Your task to perform on an android device: Open Maps and search for coffee Image 0: 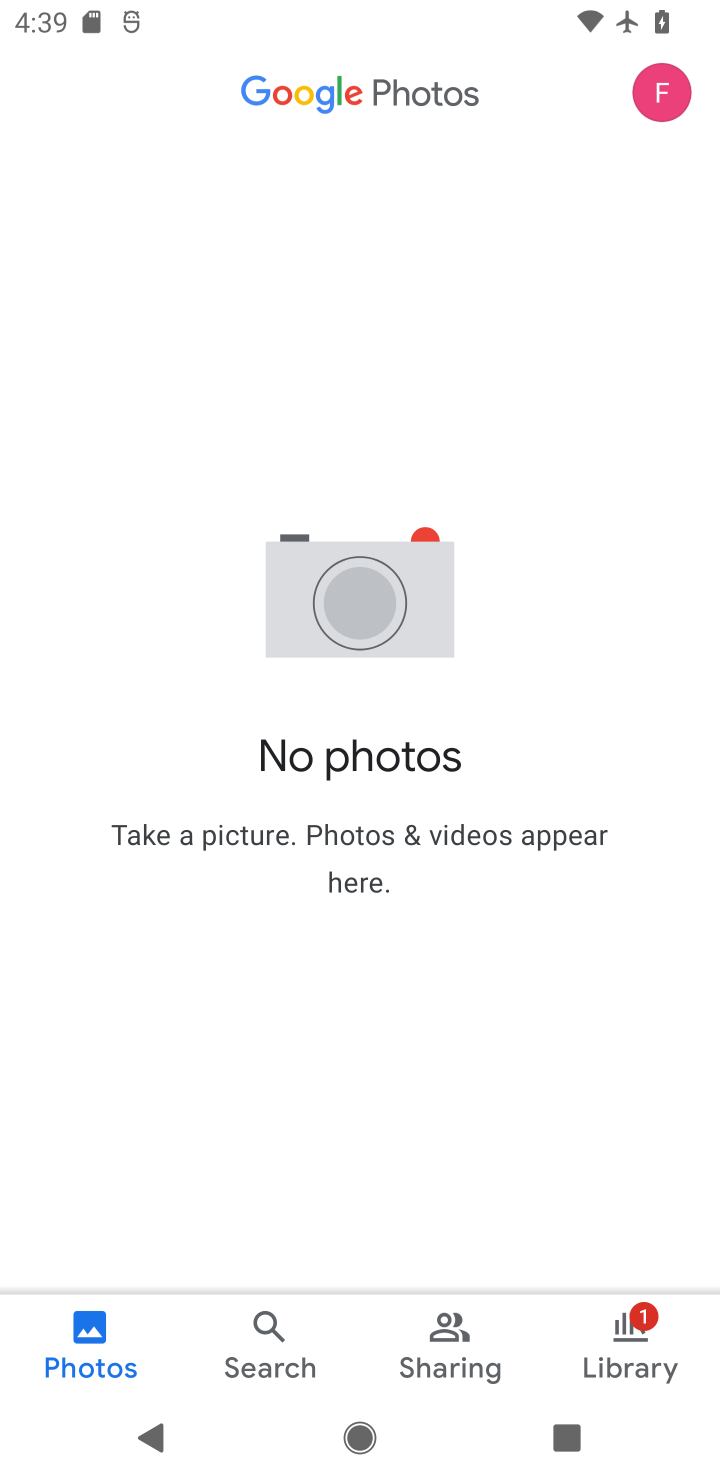
Step 0: press home button
Your task to perform on an android device: Open Maps and search for coffee Image 1: 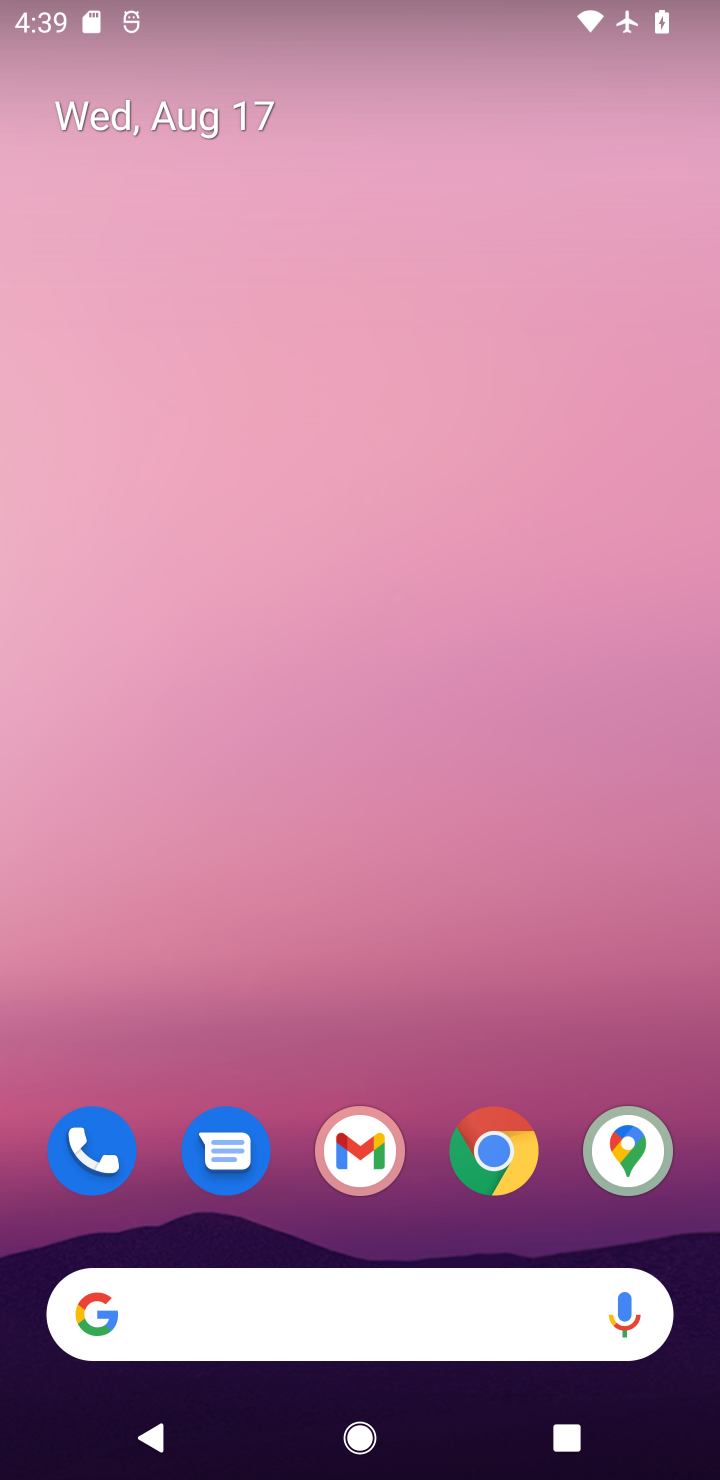
Step 1: drag from (177, 1183) to (281, 352)
Your task to perform on an android device: Open Maps and search for coffee Image 2: 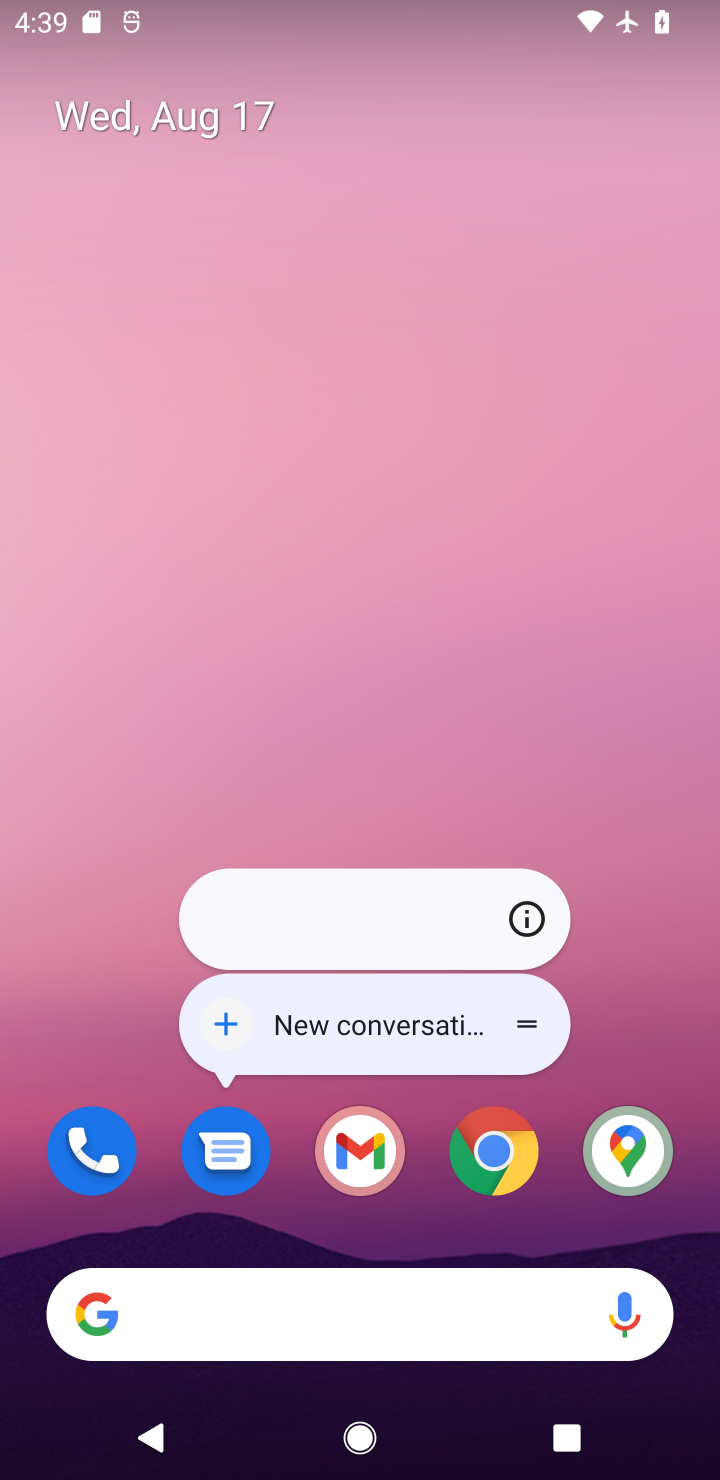
Step 2: click (437, 772)
Your task to perform on an android device: Open Maps and search for coffee Image 3: 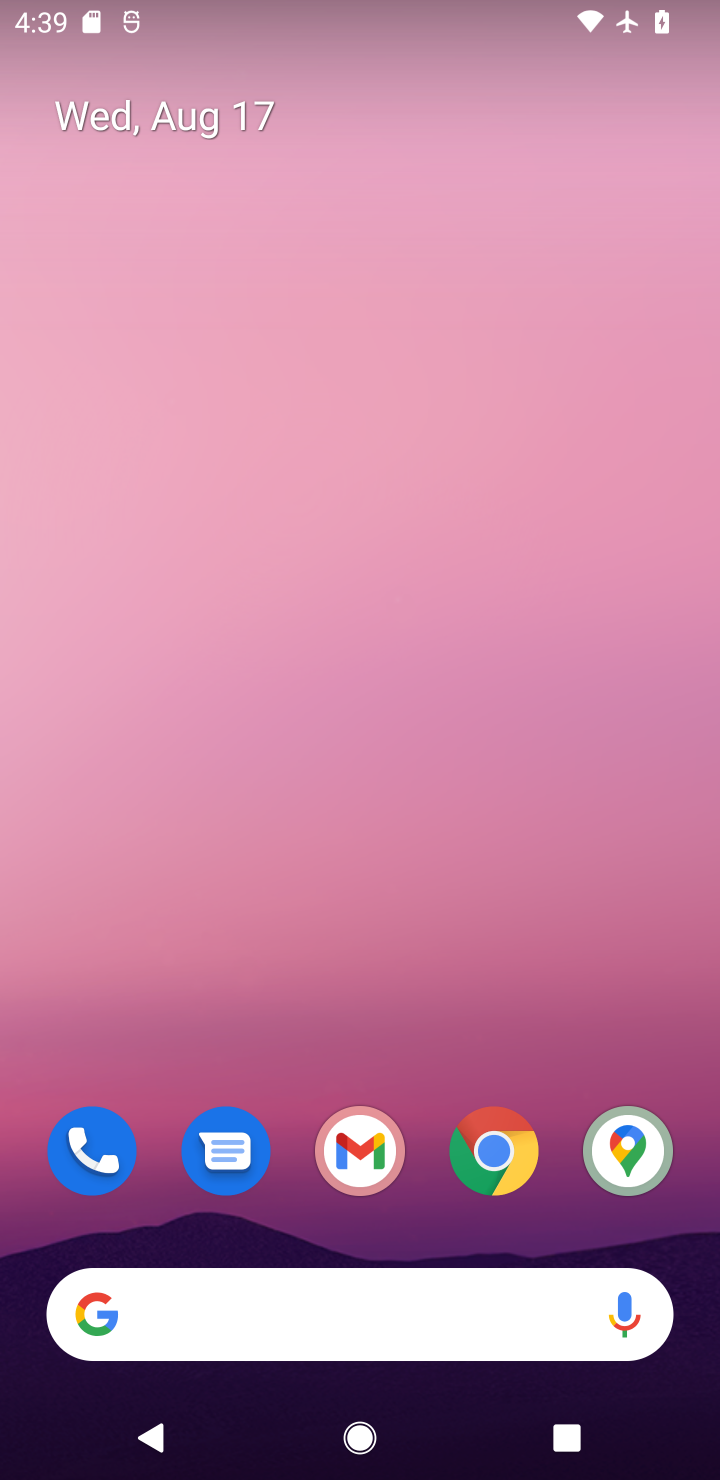
Step 3: drag from (284, 1204) to (385, 240)
Your task to perform on an android device: Open Maps and search for coffee Image 4: 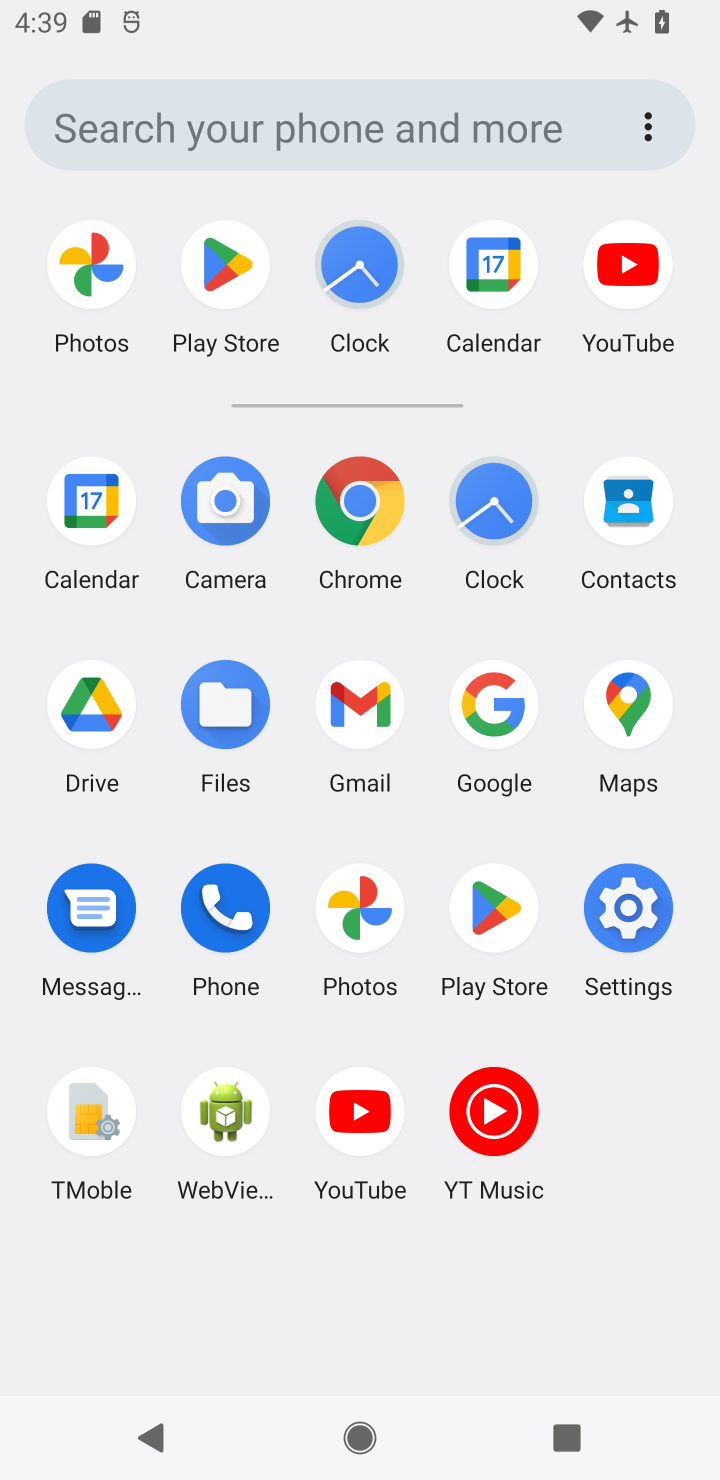
Step 4: click (624, 689)
Your task to perform on an android device: Open Maps and search for coffee Image 5: 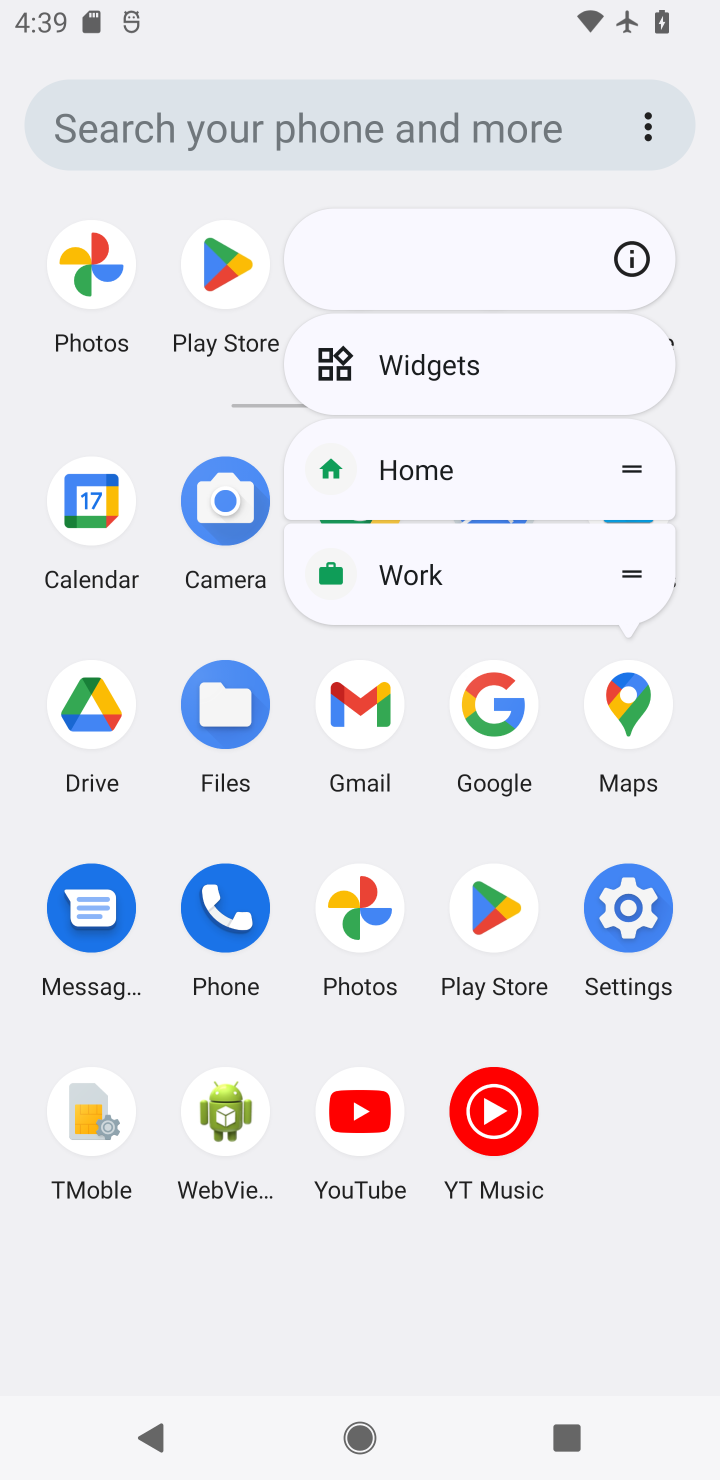
Step 5: click (624, 689)
Your task to perform on an android device: Open Maps and search for coffee Image 6: 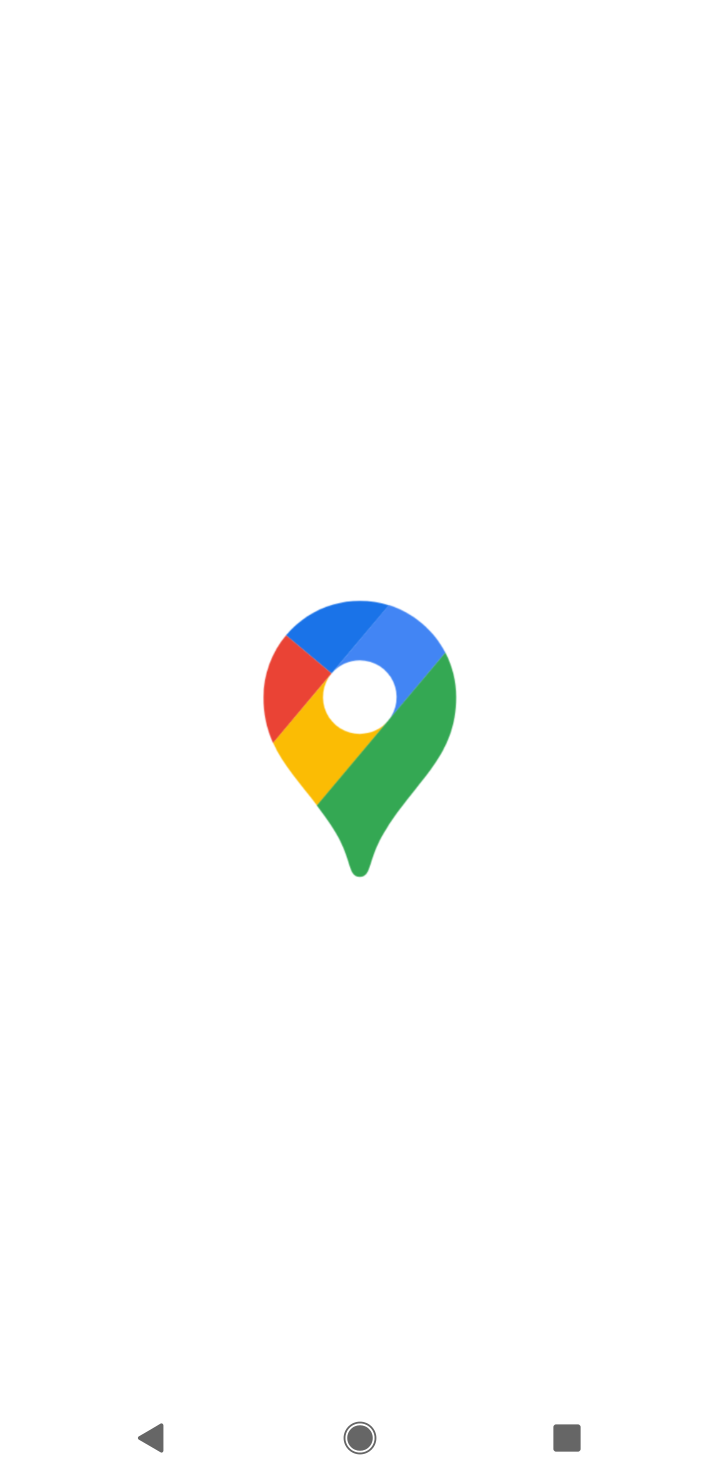
Step 6: task complete